Your task to perform on an android device: turn off priority inbox in the gmail app Image 0: 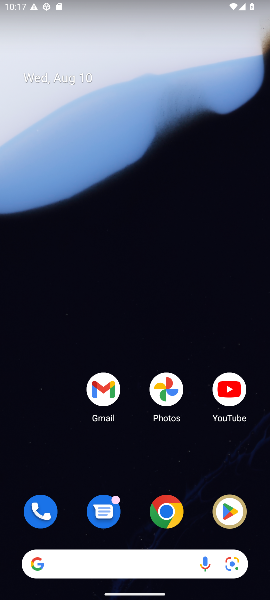
Step 0: click (102, 394)
Your task to perform on an android device: turn off priority inbox in the gmail app Image 1: 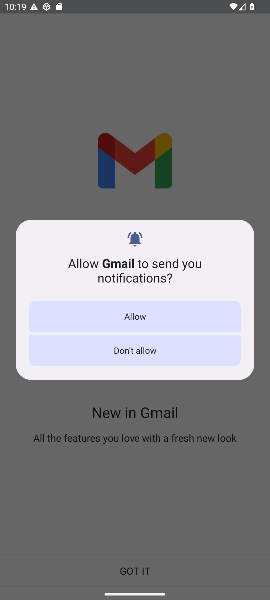
Step 1: click (157, 320)
Your task to perform on an android device: turn off priority inbox in the gmail app Image 2: 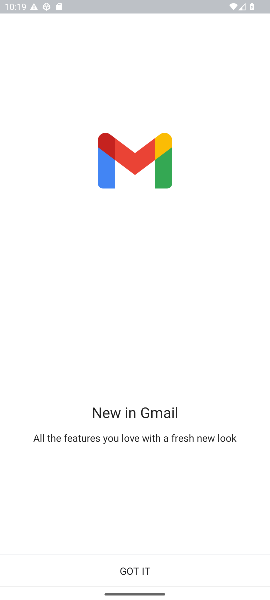
Step 2: click (115, 574)
Your task to perform on an android device: turn off priority inbox in the gmail app Image 3: 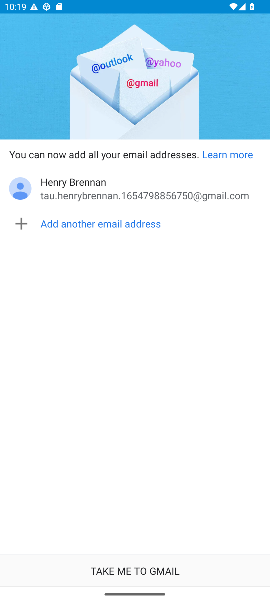
Step 3: click (115, 574)
Your task to perform on an android device: turn off priority inbox in the gmail app Image 4: 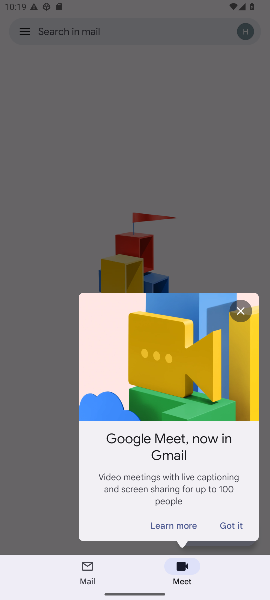
Step 4: click (224, 524)
Your task to perform on an android device: turn off priority inbox in the gmail app Image 5: 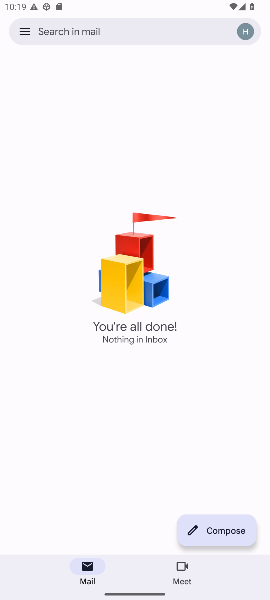
Step 5: click (19, 37)
Your task to perform on an android device: turn off priority inbox in the gmail app Image 6: 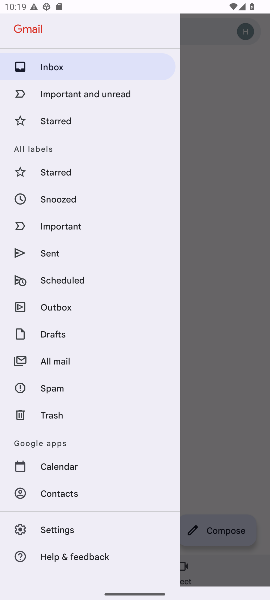
Step 6: click (55, 530)
Your task to perform on an android device: turn off priority inbox in the gmail app Image 7: 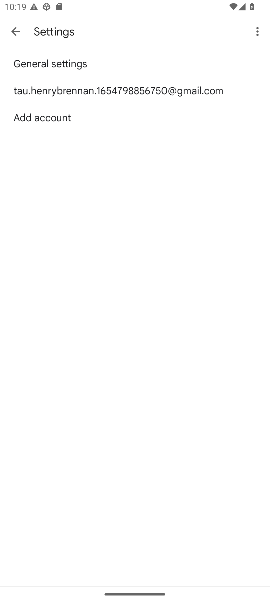
Step 7: click (184, 97)
Your task to perform on an android device: turn off priority inbox in the gmail app Image 8: 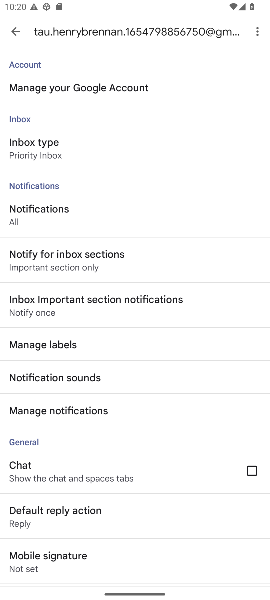
Step 8: click (67, 155)
Your task to perform on an android device: turn off priority inbox in the gmail app Image 9: 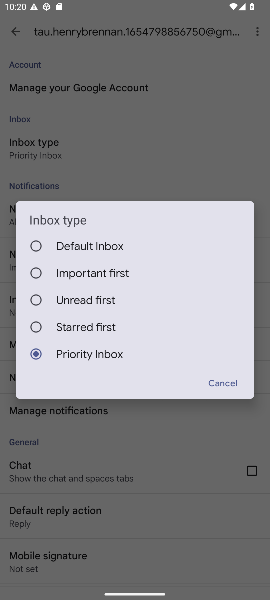
Step 9: click (73, 276)
Your task to perform on an android device: turn off priority inbox in the gmail app Image 10: 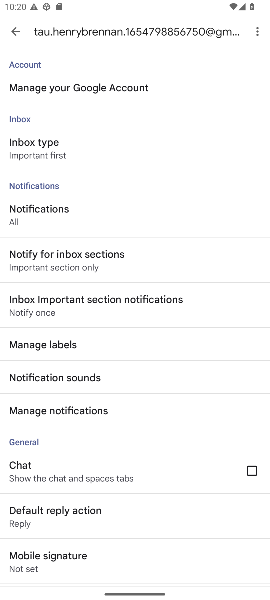
Step 10: task complete